Your task to perform on an android device: remove spam from my inbox in the gmail app Image 0: 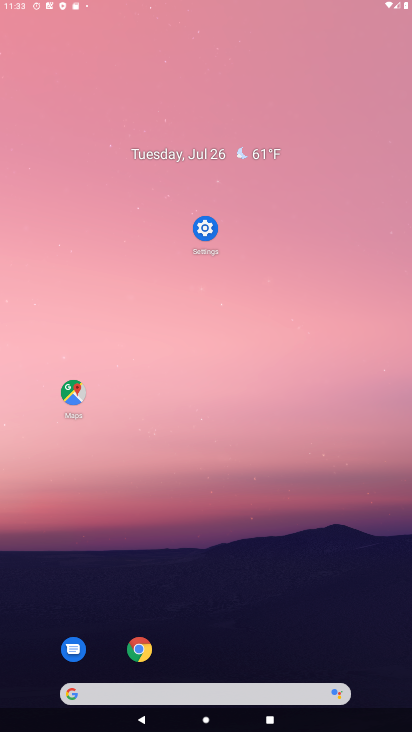
Step 0: drag from (292, 648) to (216, 280)
Your task to perform on an android device: remove spam from my inbox in the gmail app Image 1: 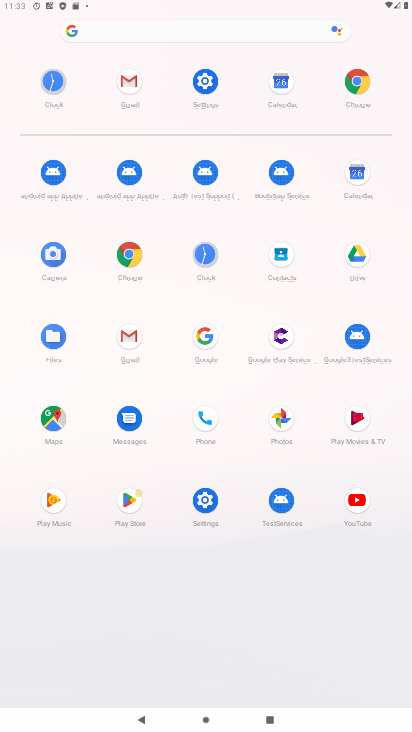
Step 1: click (139, 329)
Your task to perform on an android device: remove spam from my inbox in the gmail app Image 2: 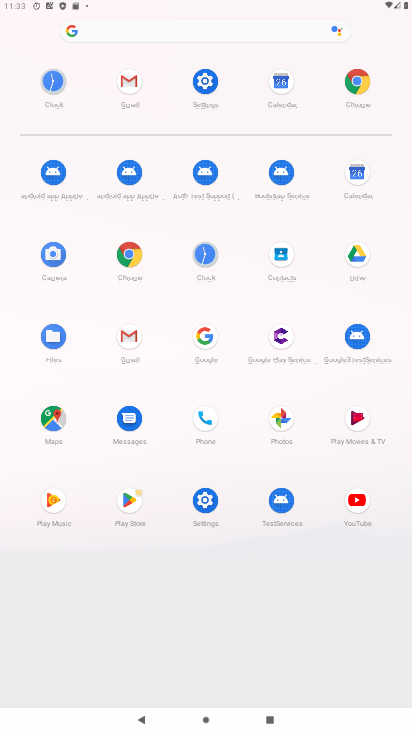
Step 2: click (136, 332)
Your task to perform on an android device: remove spam from my inbox in the gmail app Image 3: 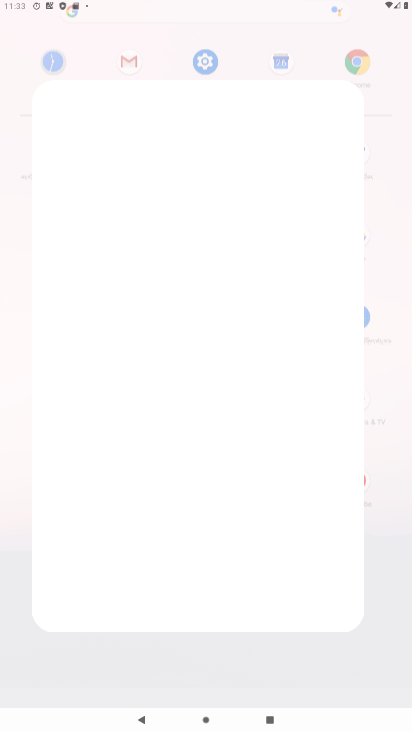
Step 3: click (135, 334)
Your task to perform on an android device: remove spam from my inbox in the gmail app Image 4: 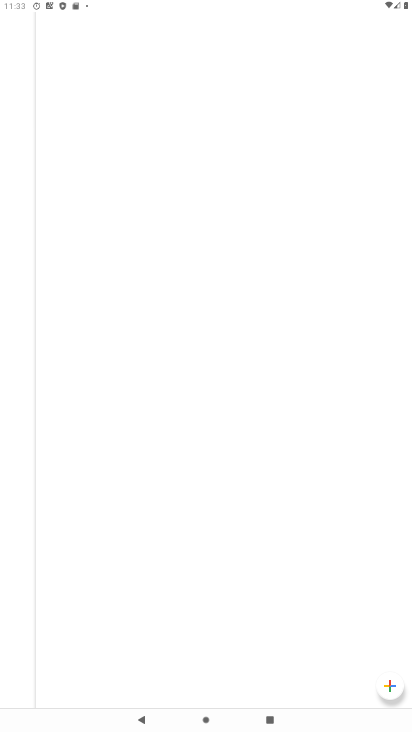
Step 4: click (119, 324)
Your task to perform on an android device: remove spam from my inbox in the gmail app Image 5: 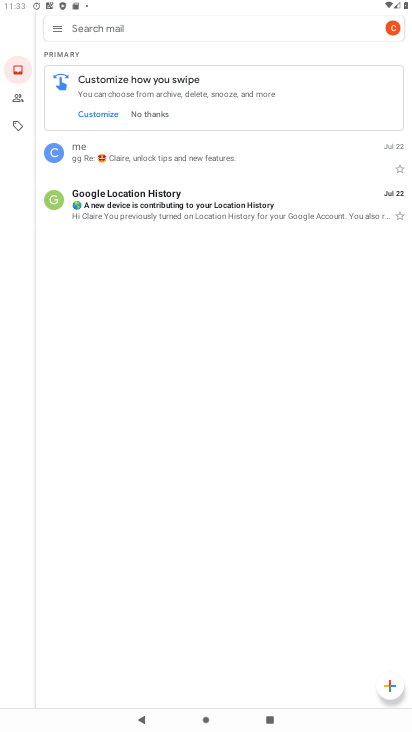
Step 5: click (61, 37)
Your task to perform on an android device: remove spam from my inbox in the gmail app Image 6: 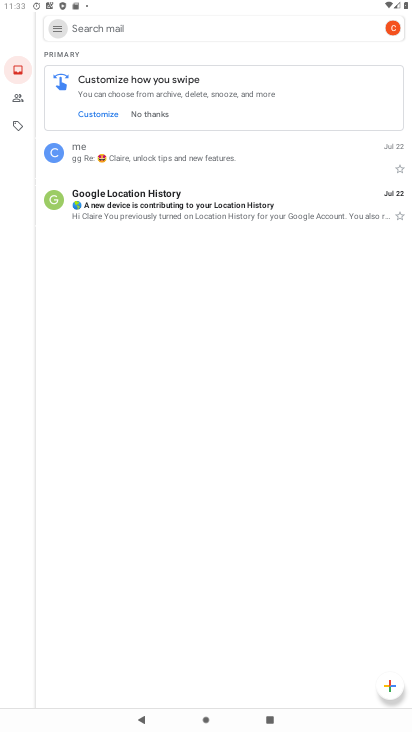
Step 6: click (61, 36)
Your task to perform on an android device: remove spam from my inbox in the gmail app Image 7: 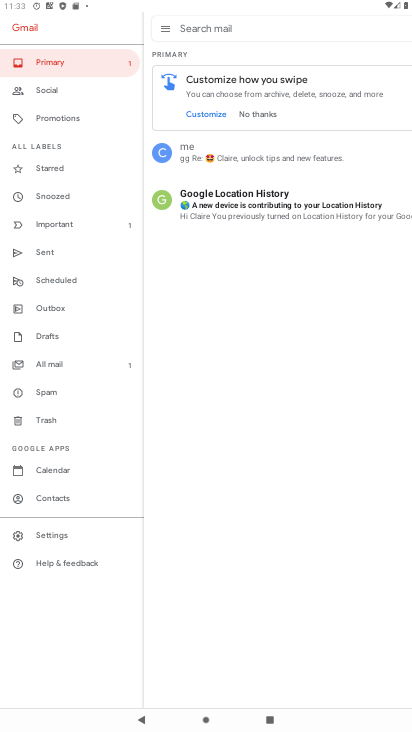
Step 7: click (53, 393)
Your task to perform on an android device: remove spam from my inbox in the gmail app Image 8: 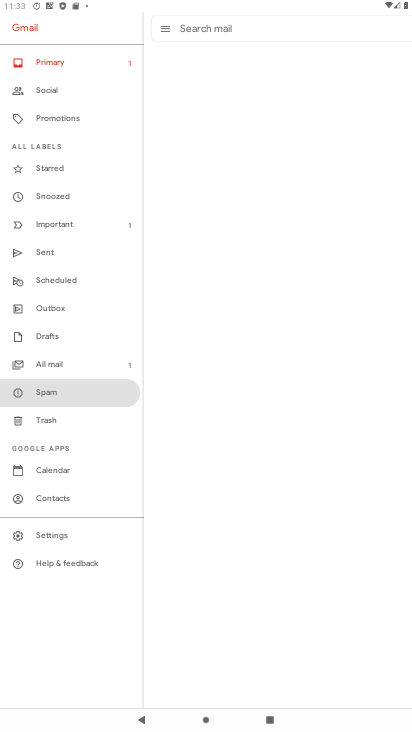
Step 8: click (55, 392)
Your task to perform on an android device: remove spam from my inbox in the gmail app Image 9: 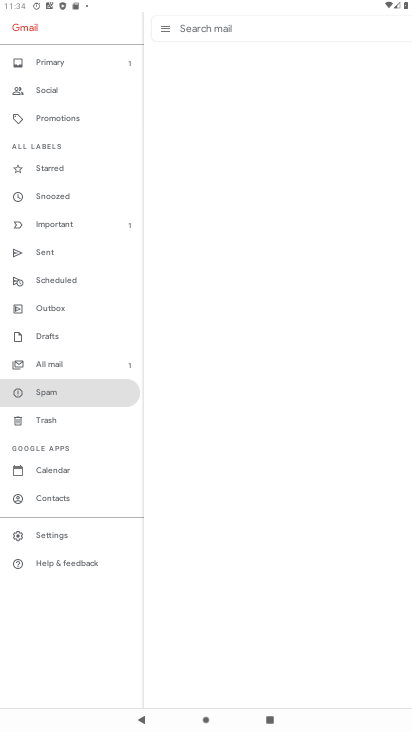
Step 9: click (59, 395)
Your task to perform on an android device: remove spam from my inbox in the gmail app Image 10: 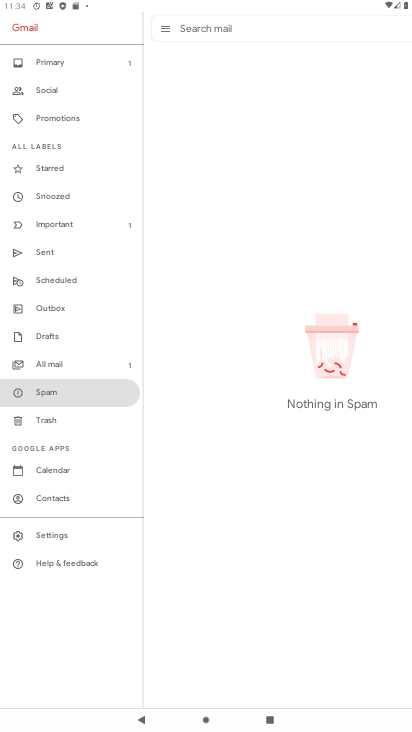
Step 10: task complete